Your task to perform on an android device: check storage Image 0: 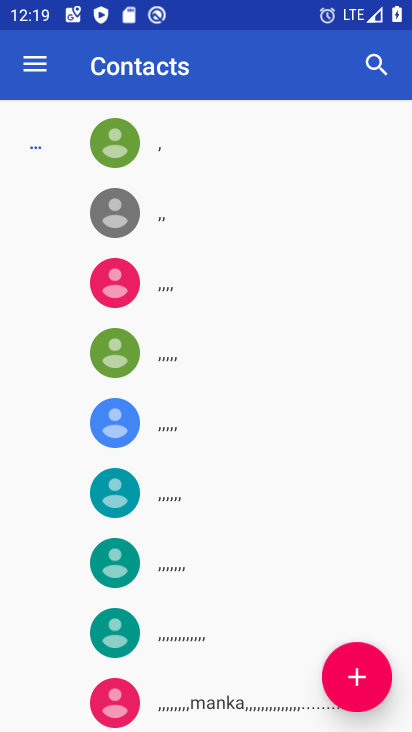
Step 0: press home button
Your task to perform on an android device: check storage Image 1: 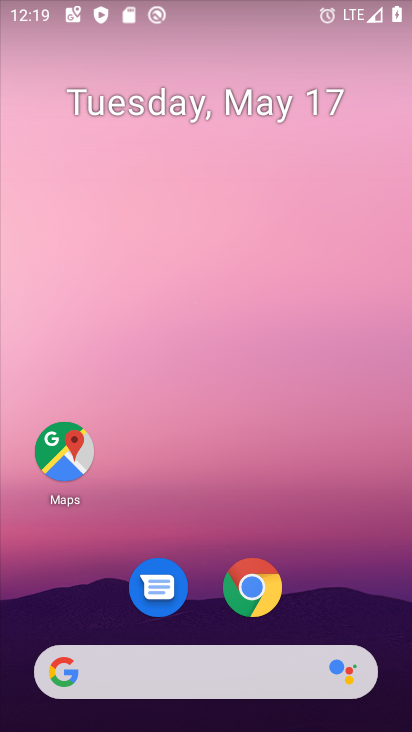
Step 1: drag from (394, 632) to (285, 92)
Your task to perform on an android device: check storage Image 2: 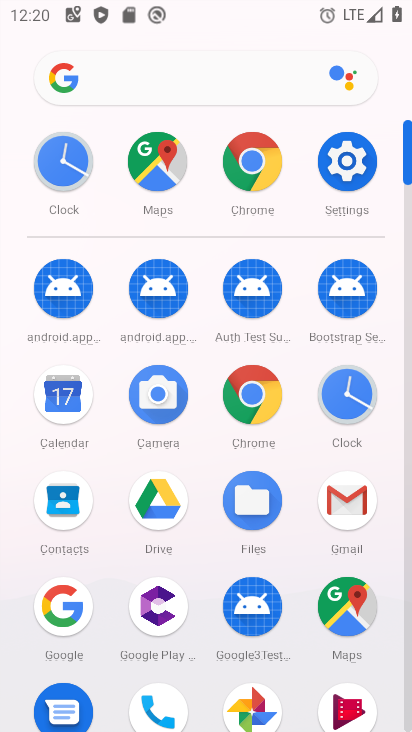
Step 2: click (332, 178)
Your task to perform on an android device: check storage Image 3: 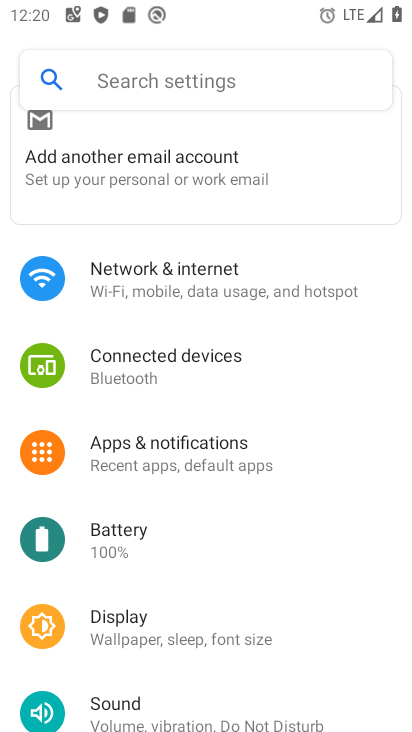
Step 3: drag from (183, 690) to (242, 230)
Your task to perform on an android device: check storage Image 4: 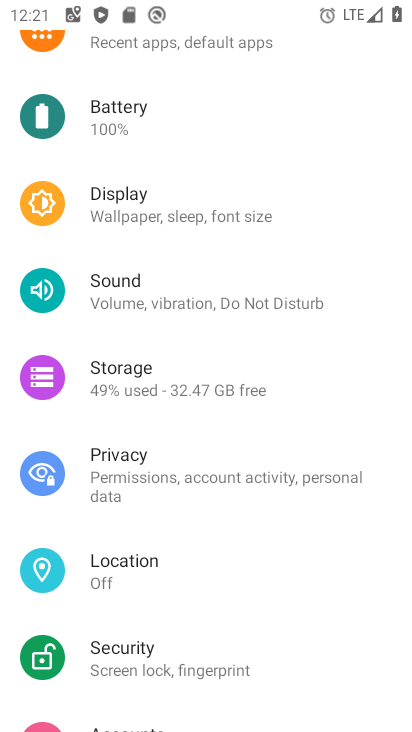
Step 4: drag from (165, 639) to (226, 235)
Your task to perform on an android device: check storage Image 5: 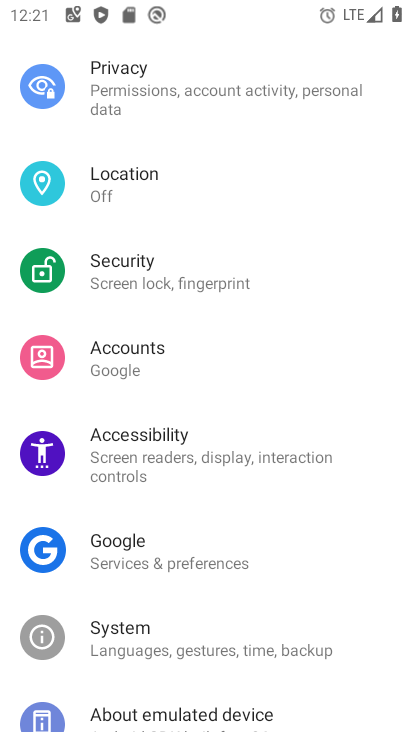
Step 5: drag from (92, 269) to (100, 728)
Your task to perform on an android device: check storage Image 6: 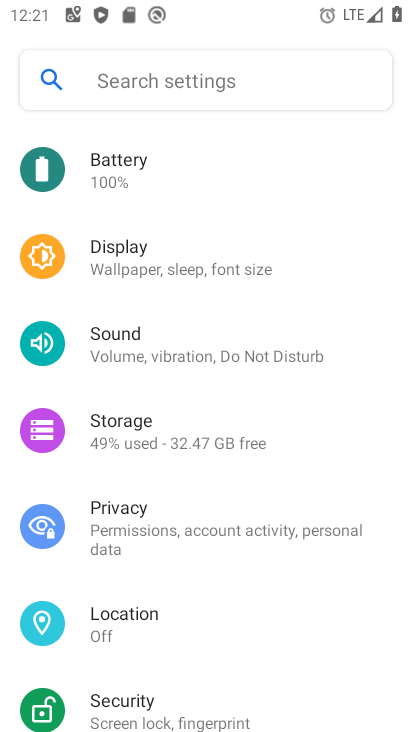
Step 6: click (95, 406)
Your task to perform on an android device: check storage Image 7: 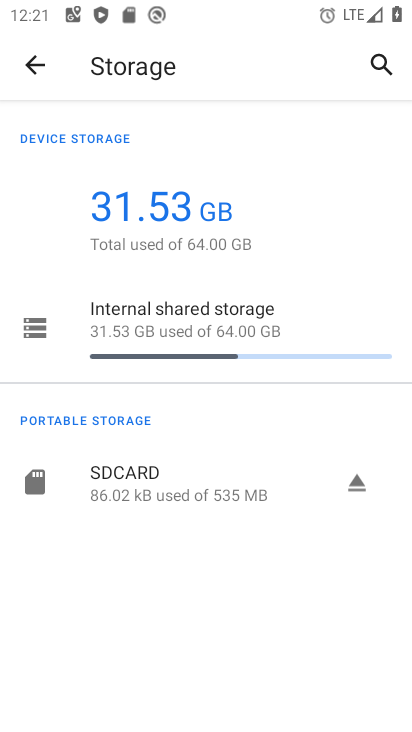
Step 7: click (185, 326)
Your task to perform on an android device: check storage Image 8: 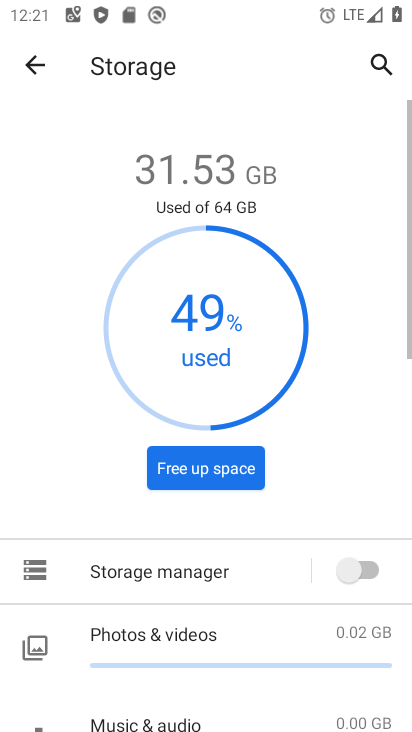
Step 8: task complete